Your task to perform on an android device: find which apps use the phone's location Image 0: 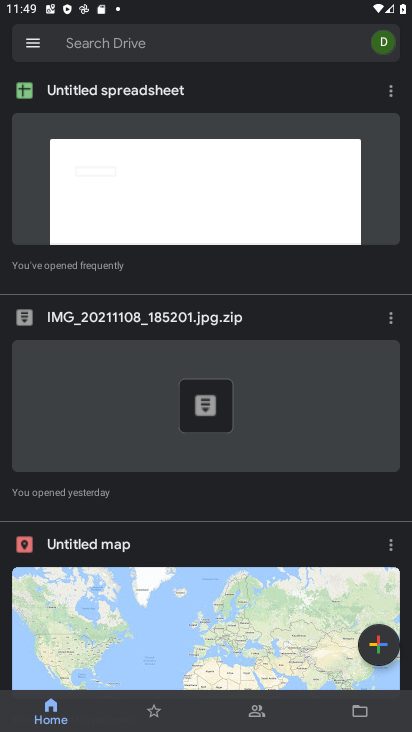
Step 0: press home button
Your task to perform on an android device: find which apps use the phone's location Image 1: 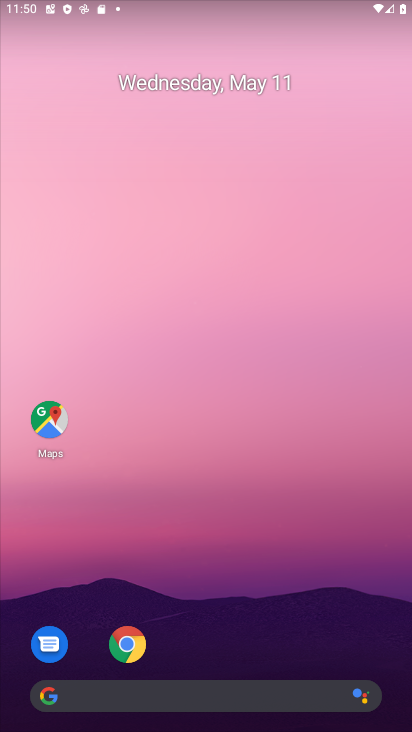
Step 1: drag from (359, 566) to (351, 169)
Your task to perform on an android device: find which apps use the phone's location Image 2: 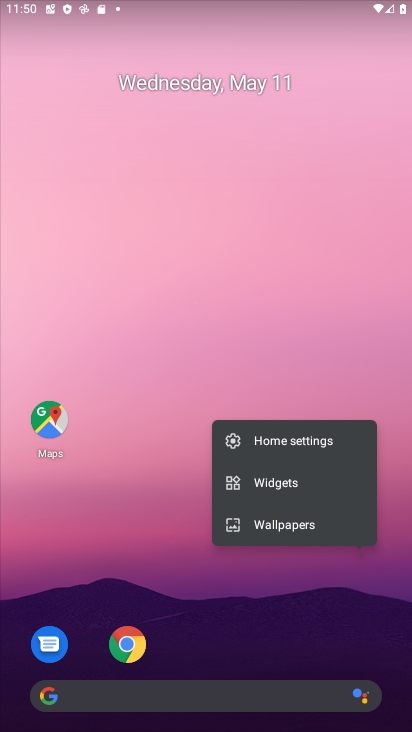
Step 2: drag from (176, 617) to (222, 12)
Your task to perform on an android device: find which apps use the phone's location Image 3: 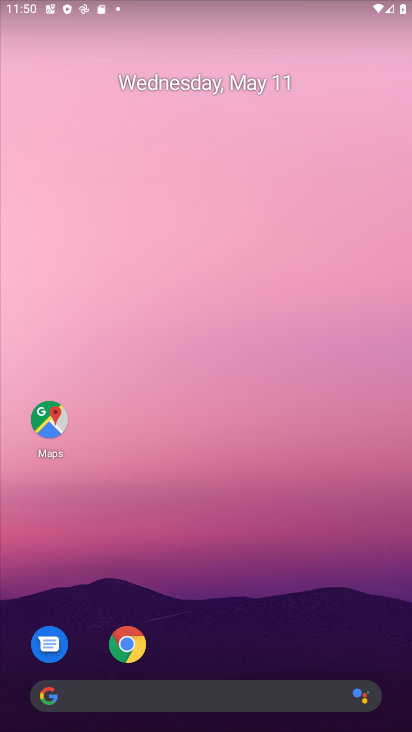
Step 3: drag from (242, 591) to (287, 178)
Your task to perform on an android device: find which apps use the phone's location Image 4: 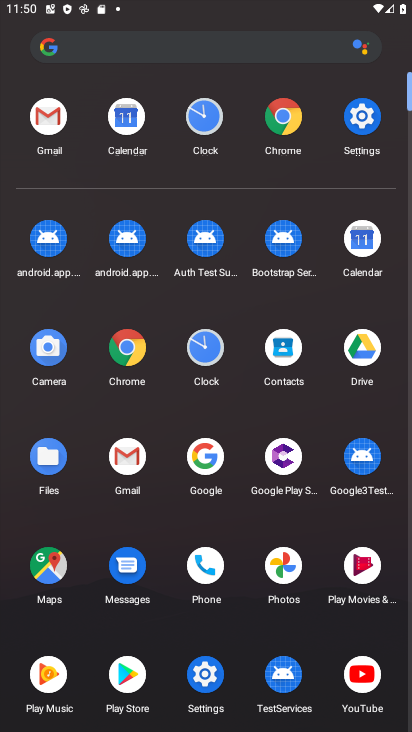
Step 4: click (366, 110)
Your task to perform on an android device: find which apps use the phone's location Image 5: 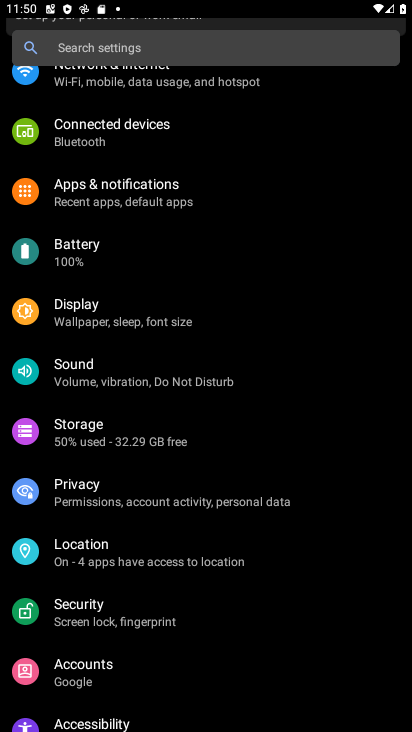
Step 5: click (153, 533)
Your task to perform on an android device: find which apps use the phone's location Image 6: 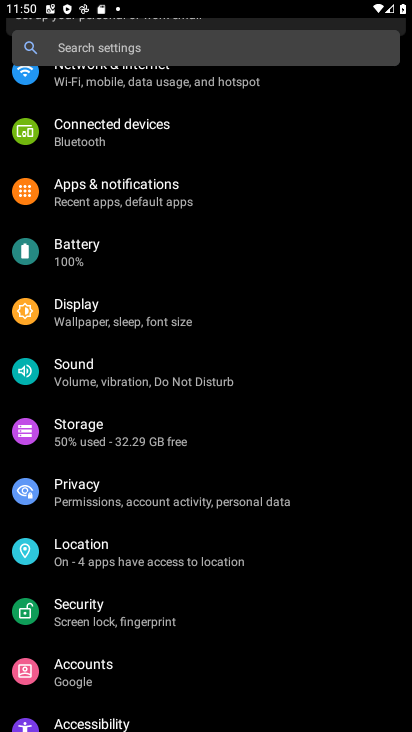
Step 6: click (190, 535)
Your task to perform on an android device: find which apps use the phone's location Image 7: 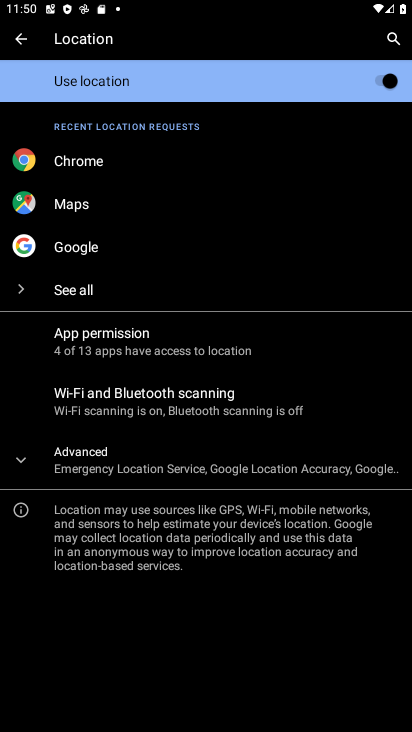
Step 7: click (146, 454)
Your task to perform on an android device: find which apps use the phone's location Image 8: 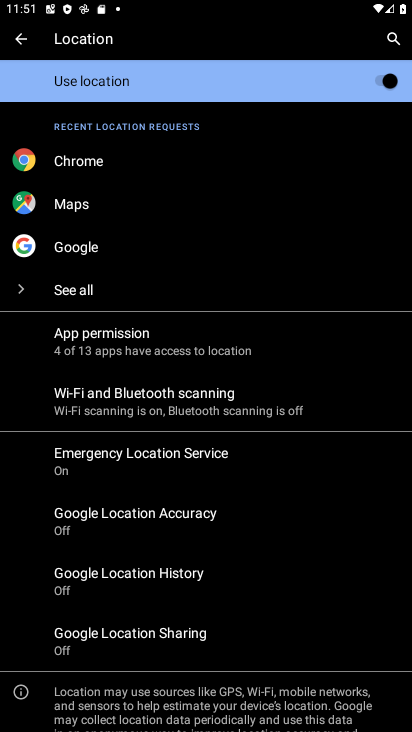
Step 8: click (99, 321)
Your task to perform on an android device: find which apps use the phone's location Image 9: 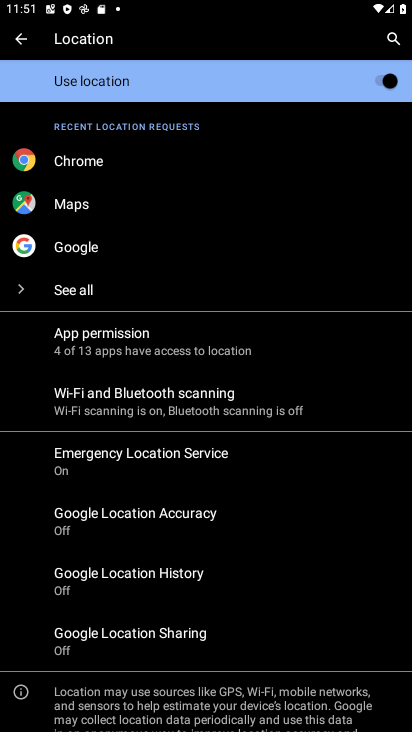
Step 9: task complete